Your task to perform on an android device: Open settings on Google Maps Image 0: 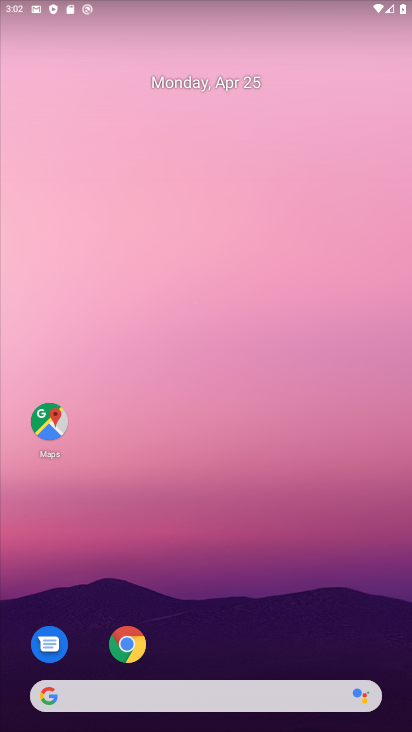
Step 0: click (36, 413)
Your task to perform on an android device: Open settings on Google Maps Image 1: 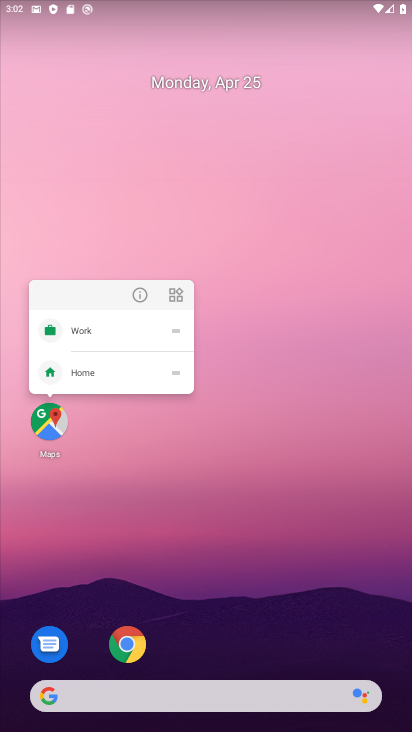
Step 1: click (252, 521)
Your task to perform on an android device: Open settings on Google Maps Image 2: 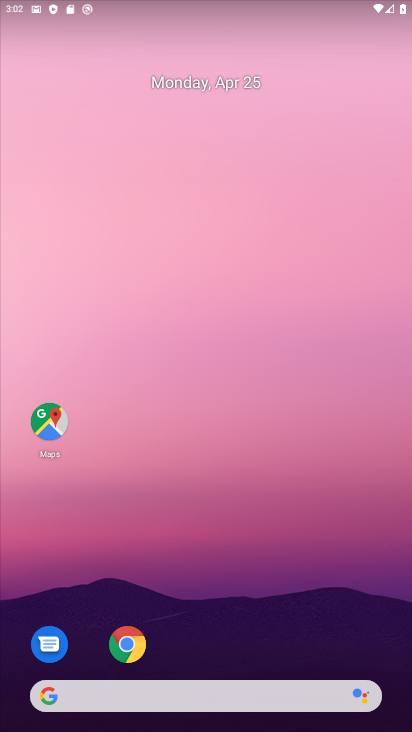
Step 2: click (43, 421)
Your task to perform on an android device: Open settings on Google Maps Image 3: 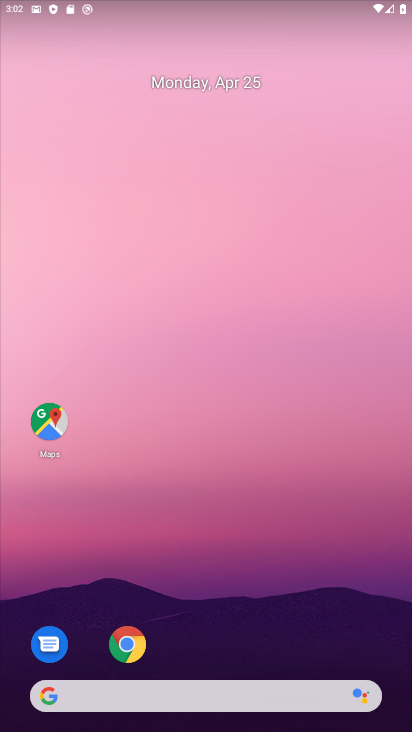
Step 3: click (43, 421)
Your task to perform on an android device: Open settings on Google Maps Image 4: 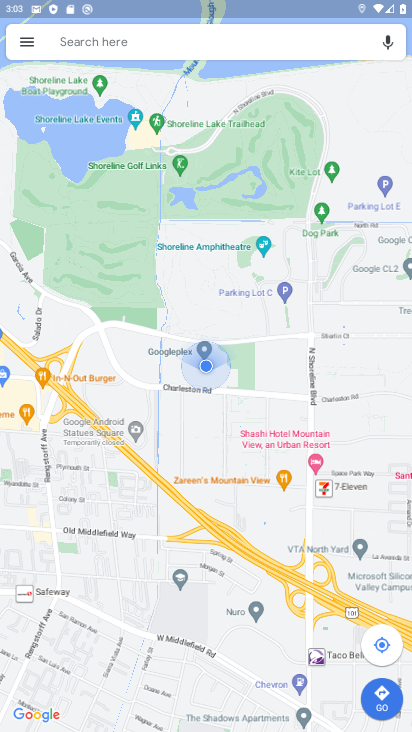
Step 4: task complete